Your task to perform on an android device: Search for pizza restaurants on Maps Image 0: 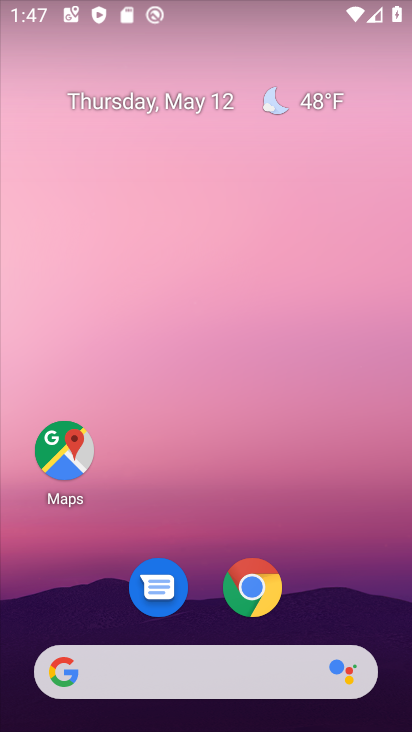
Step 0: drag from (227, 651) to (252, 233)
Your task to perform on an android device: Search for pizza restaurants on Maps Image 1: 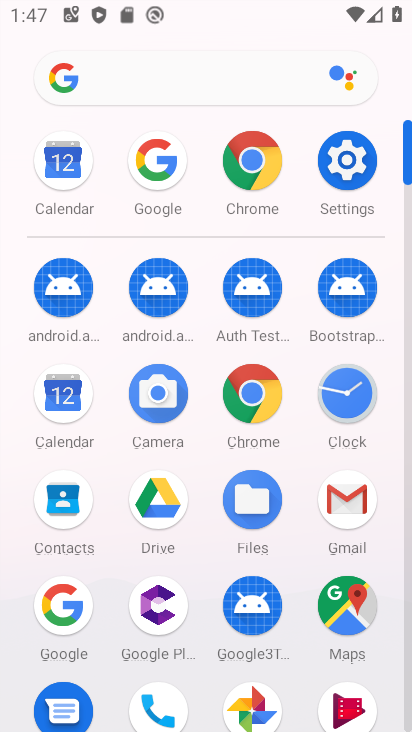
Step 1: click (340, 637)
Your task to perform on an android device: Search for pizza restaurants on Maps Image 2: 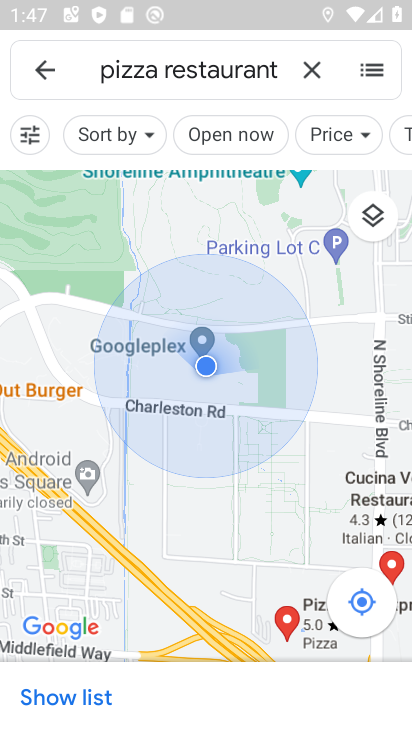
Step 2: task complete